Your task to perform on an android device: change the clock display to show seconds Image 0: 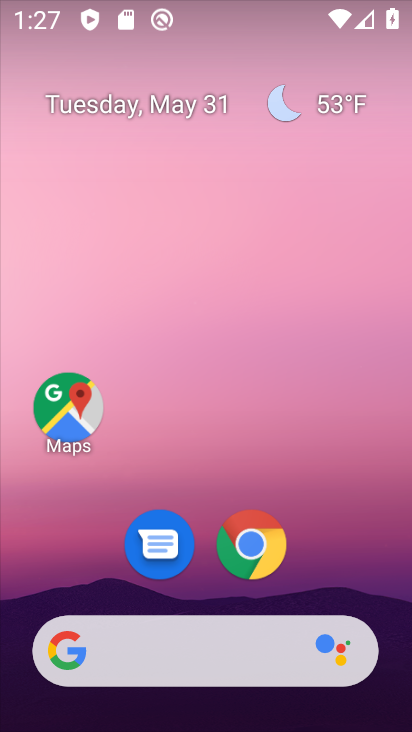
Step 0: click (271, 539)
Your task to perform on an android device: change the clock display to show seconds Image 1: 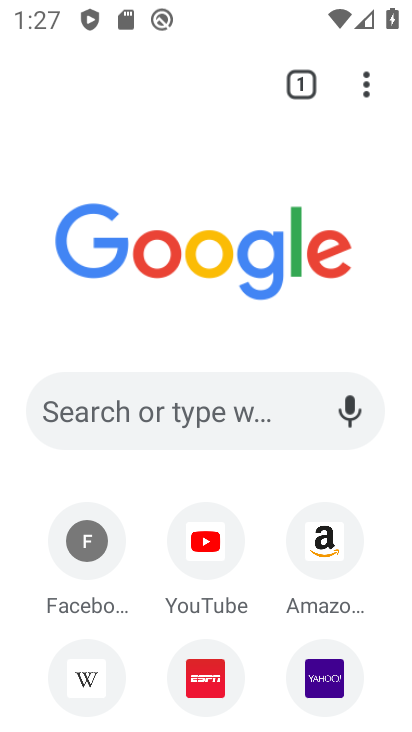
Step 1: press home button
Your task to perform on an android device: change the clock display to show seconds Image 2: 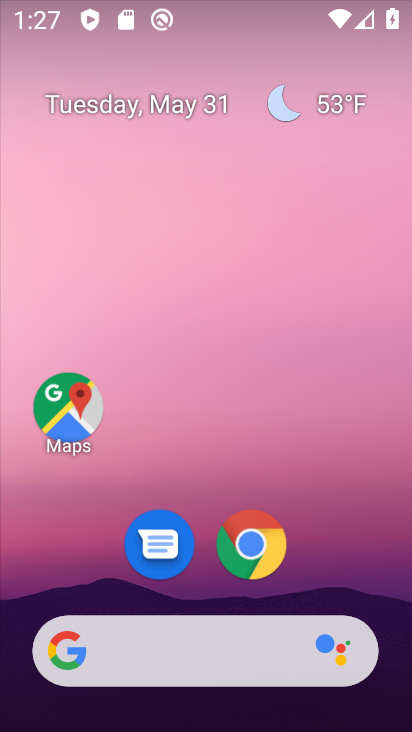
Step 2: drag from (323, 553) to (285, 8)
Your task to perform on an android device: change the clock display to show seconds Image 3: 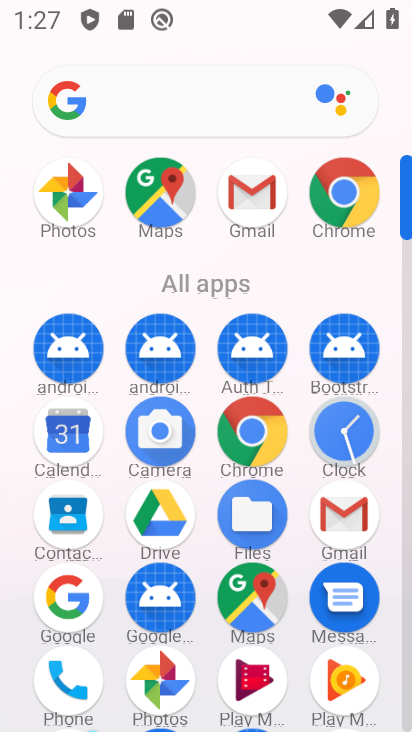
Step 3: click (356, 443)
Your task to perform on an android device: change the clock display to show seconds Image 4: 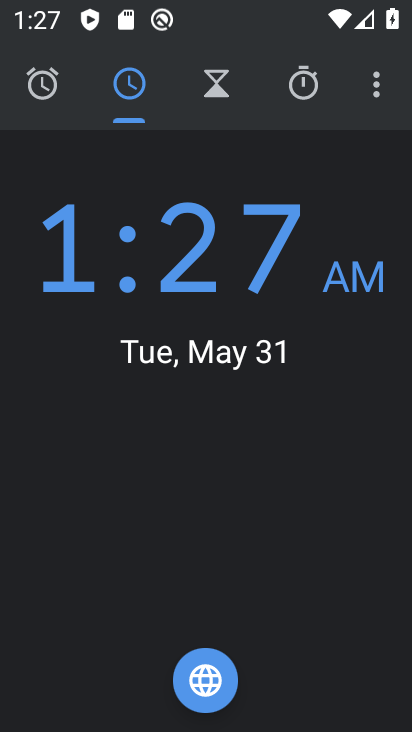
Step 4: click (383, 94)
Your task to perform on an android device: change the clock display to show seconds Image 5: 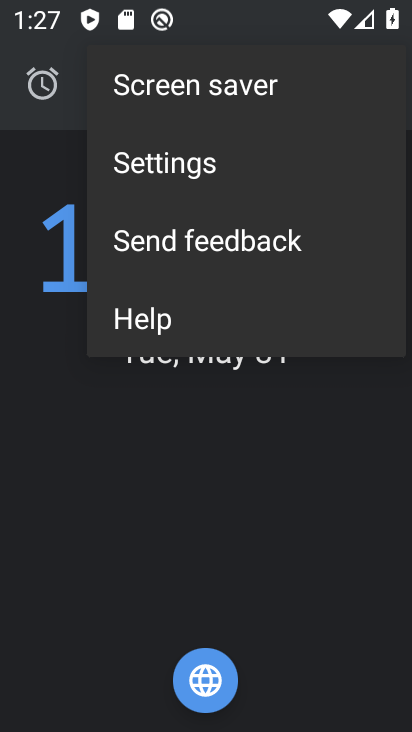
Step 5: click (248, 175)
Your task to perform on an android device: change the clock display to show seconds Image 6: 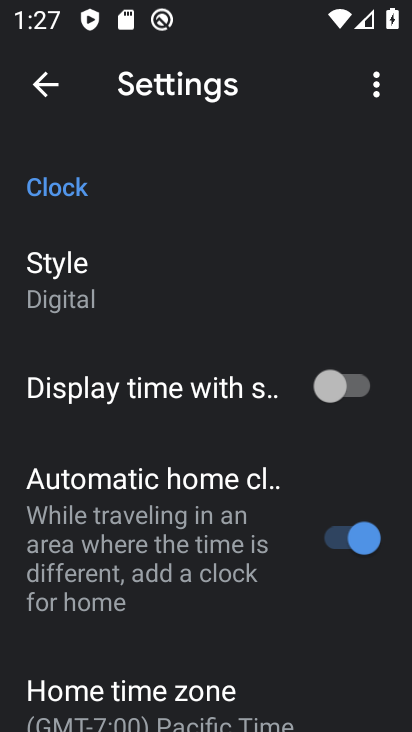
Step 6: click (363, 398)
Your task to perform on an android device: change the clock display to show seconds Image 7: 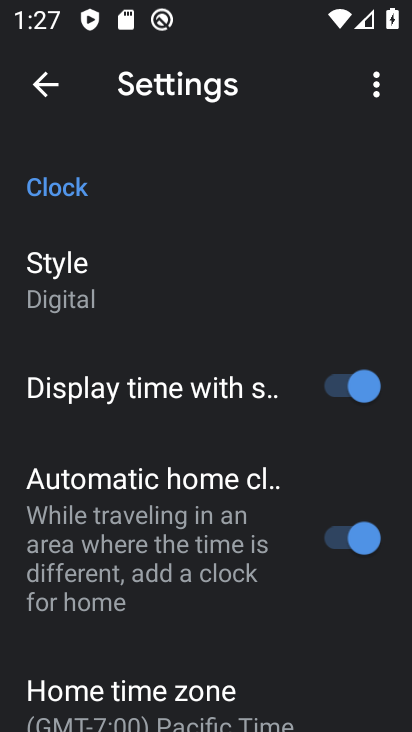
Step 7: task complete